Your task to perform on an android device: turn off data saver in the chrome app Image 0: 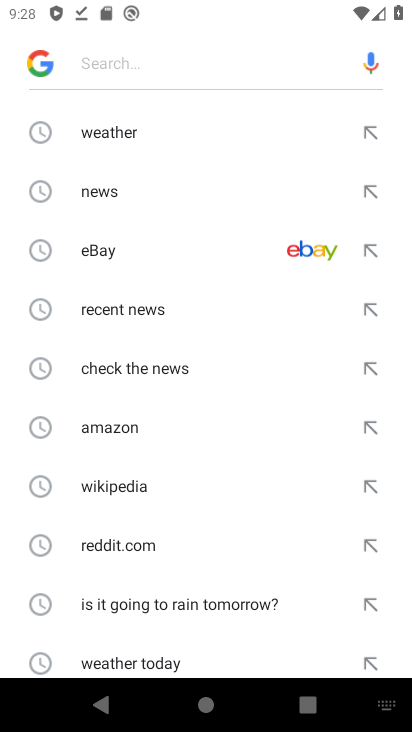
Step 0: press home button
Your task to perform on an android device: turn off data saver in the chrome app Image 1: 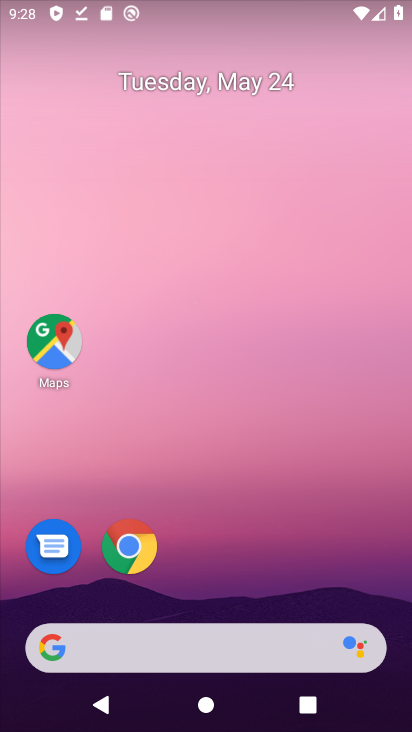
Step 1: click (131, 549)
Your task to perform on an android device: turn off data saver in the chrome app Image 2: 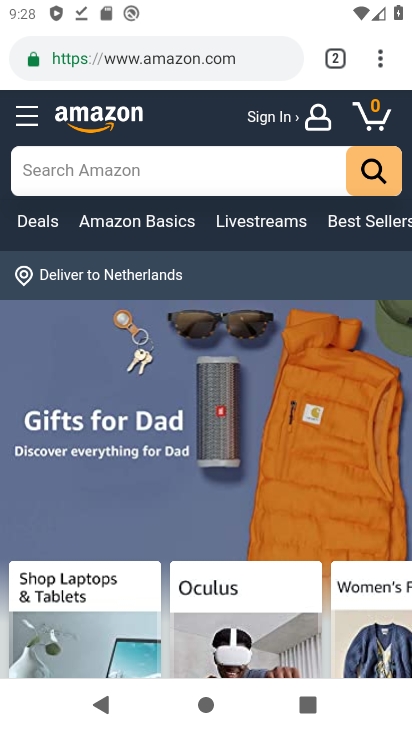
Step 2: click (382, 55)
Your task to perform on an android device: turn off data saver in the chrome app Image 3: 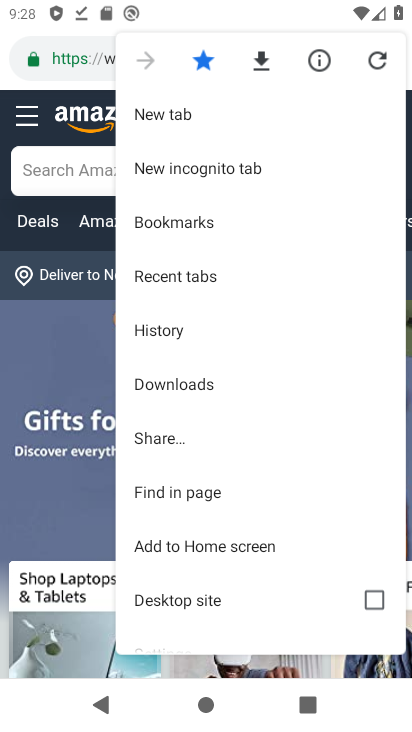
Step 3: drag from (274, 420) to (258, 75)
Your task to perform on an android device: turn off data saver in the chrome app Image 4: 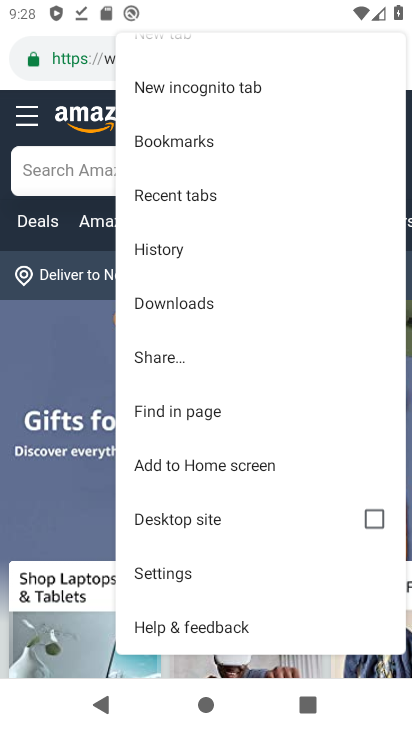
Step 4: click (163, 567)
Your task to perform on an android device: turn off data saver in the chrome app Image 5: 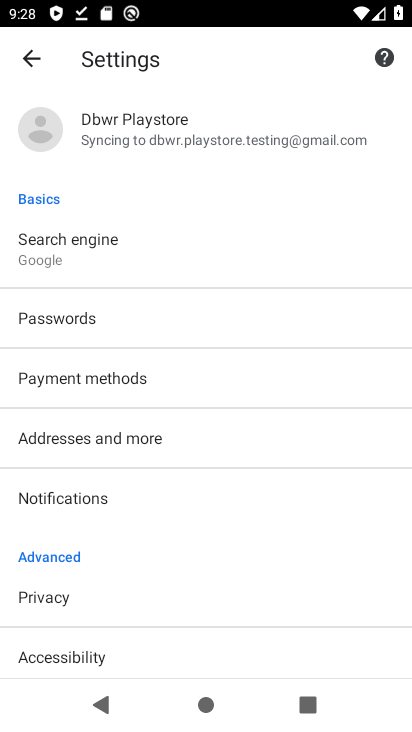
Step 5: drag from (306, 572) to (279, 194)
Your task to perform on an android device: turn off data saver in the chrome app Image 6: 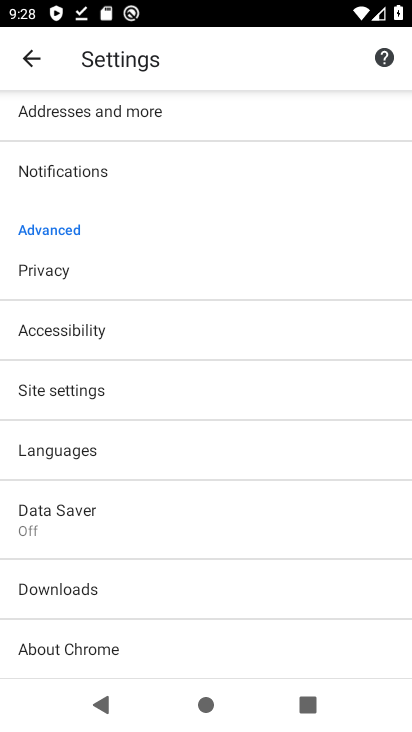
Step 6: click (81, 514)
Your task to perform on an android device: turn off data saver in the chrome app Image 7: 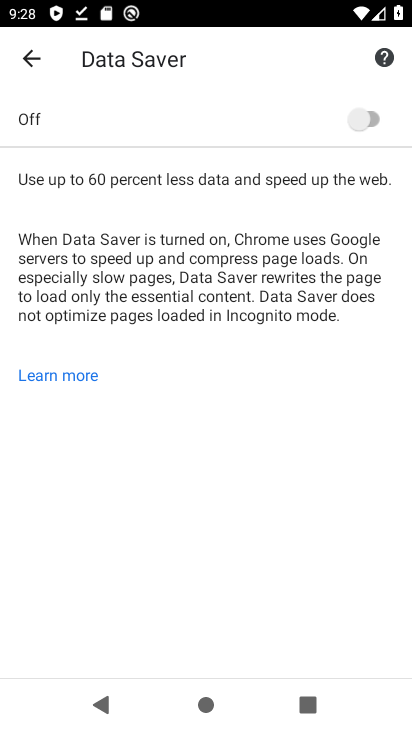
Step 7: task complete